Your task to perform on an android device: When is my next meeting? Image 0: 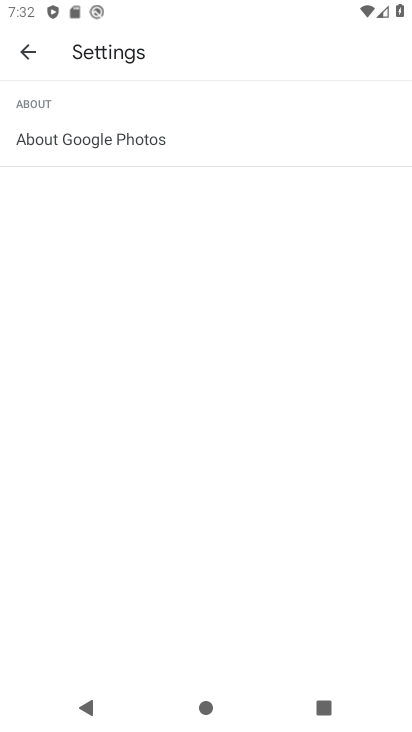
Step 0: press home button
Your task to perform on an android device: When is my next meeting? Image 1: 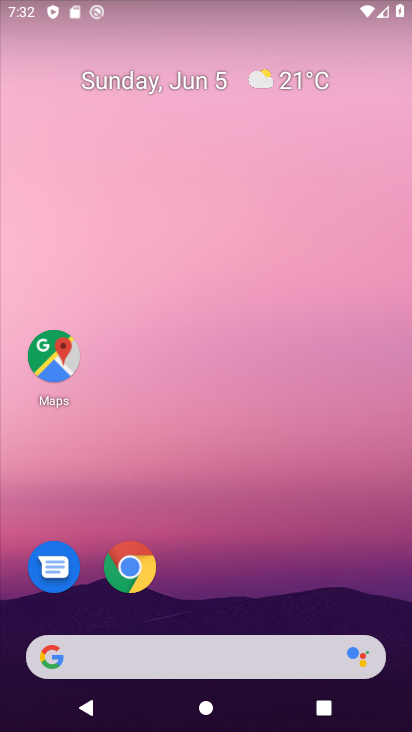
Step 1: drag from (251, 621) to (280, 340)
Your task to perform on an android device: When is my next meeting? Image 2: 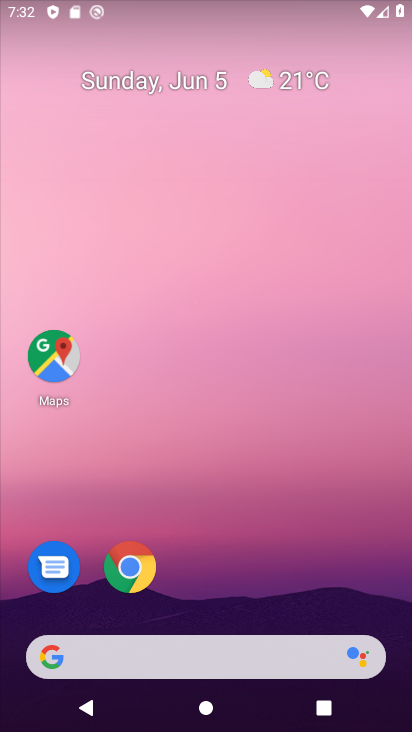
Step 2: drag from (196, 656) to (239, 210)
Your task to perform on an android device: When is my next meeting? Image 3: 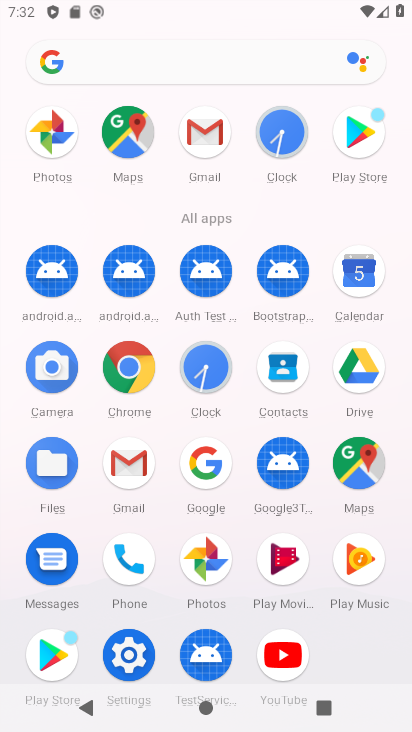
Step 3: click (373, 275)
Your task to perform on an android device: When is my next meeting? Image 4: 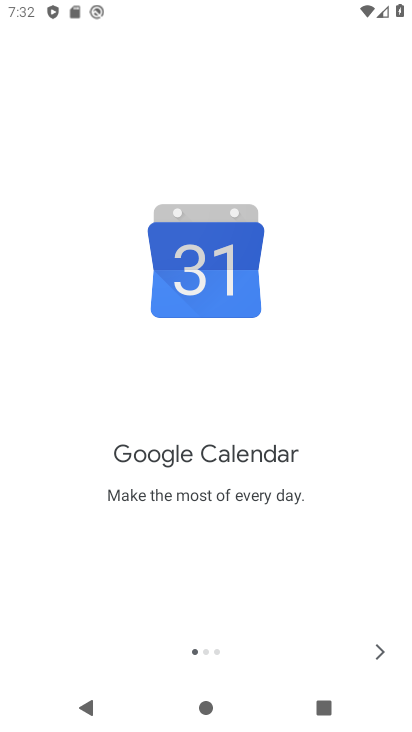
Step 4: click (376, 648)
Your task to perform on an android device: When is my next meeting? Image 5: 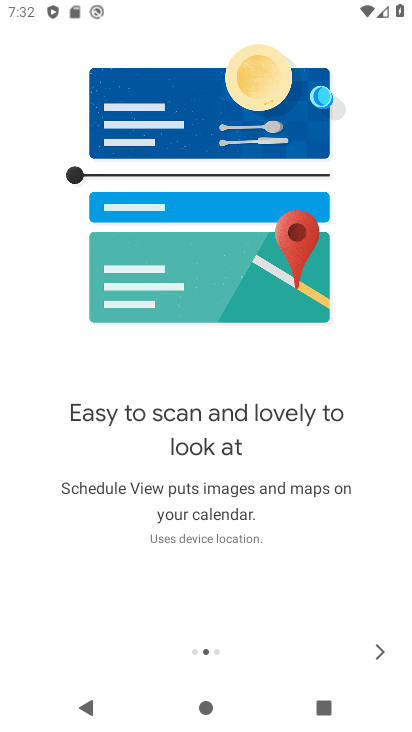
Step 5: click (376, 648)
Your task to perform on an android device: When is my next meeting? Image 6: 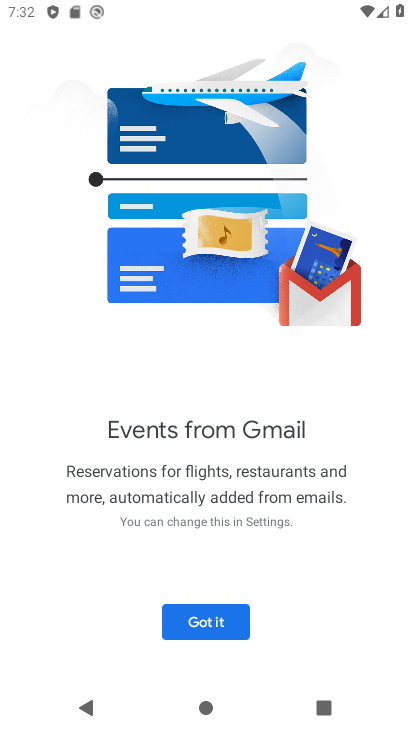
Step 6: click (233, 617)
Your task to perform on an android device: When is my next meeting? Image 7: 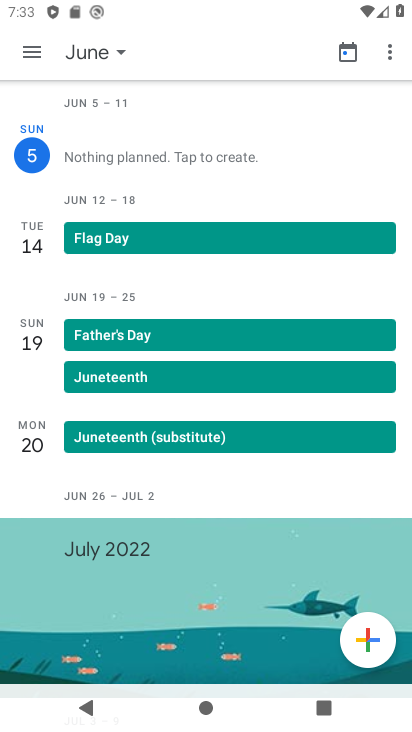
Step 7: click (140, 153)
Your task to perform on an android device: When is my next meeting? Image 8: 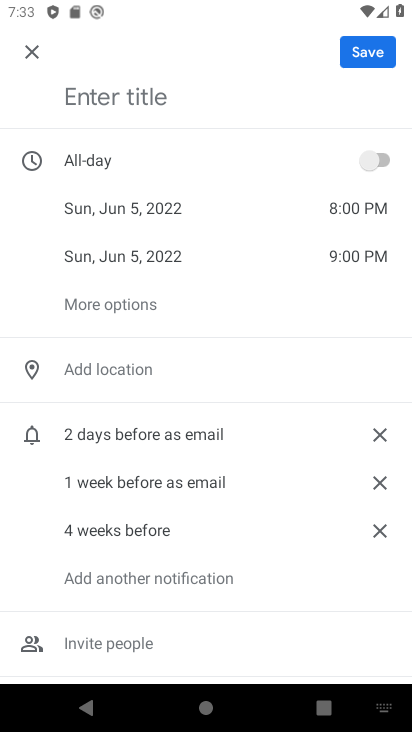
Step 8: click (24, 62)
Your task to perform on an android device: When is my next meeting? Image 9: 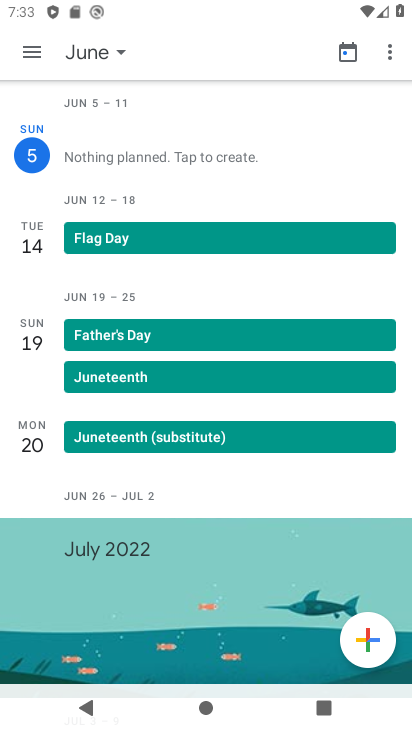
Step 9: task complete